Your task to perform on an android device: Open Google Chrome and open the bookmarks view Image 0: 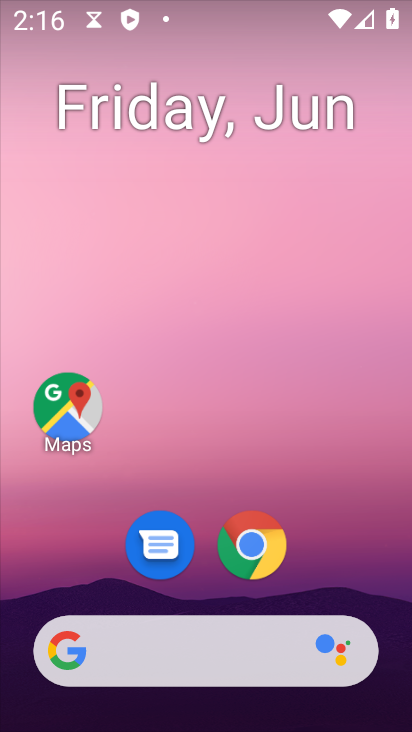
Step 0: click (263, 536)
Your task to perform on an android device: Open Google Chrome and open the bookmarks view Image 1: 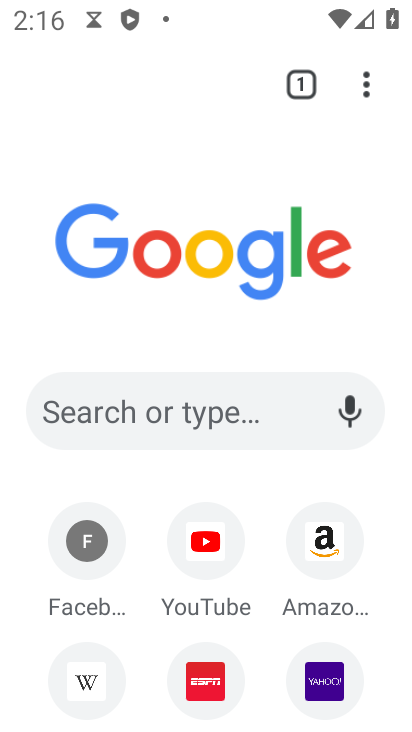
Step 1: click (360, 97)
Your task to perform on an android device: Open Google Chrome and open the bookmarks view Image 2: 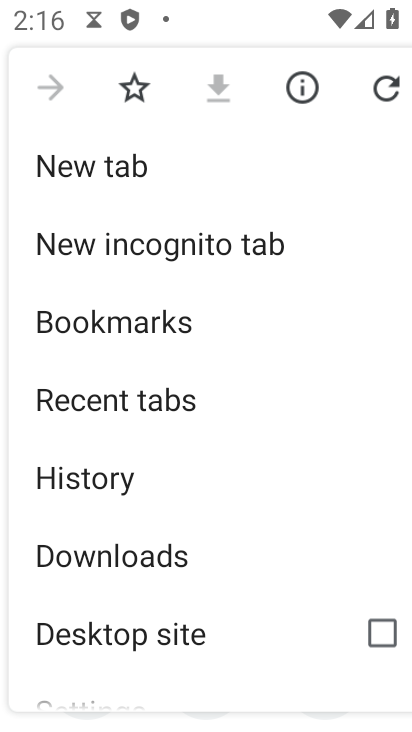
Step 2: click (133, 332)
Your task to perform on an android device: Open Google Chrome and open the bookmarks view Image 3: 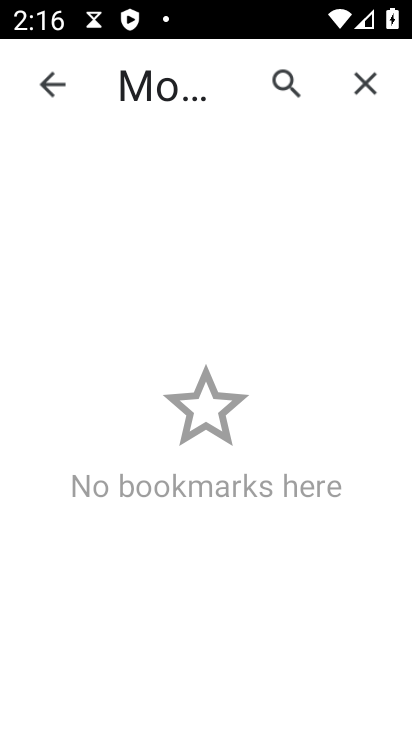
Step 3: task complete